Your task to perform on an android device: Go to calendar. Show me events next week Image 0: 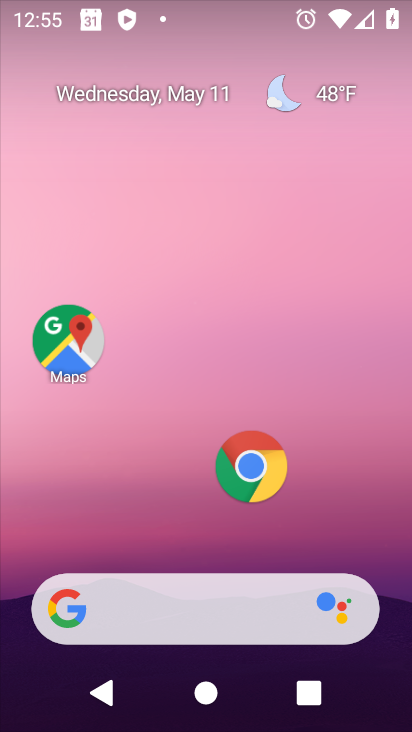
Step 0: drag from (148, 545) to (230, 121)
Your task to perform on an android device: Go to calendar. Show me events next week Image 1: 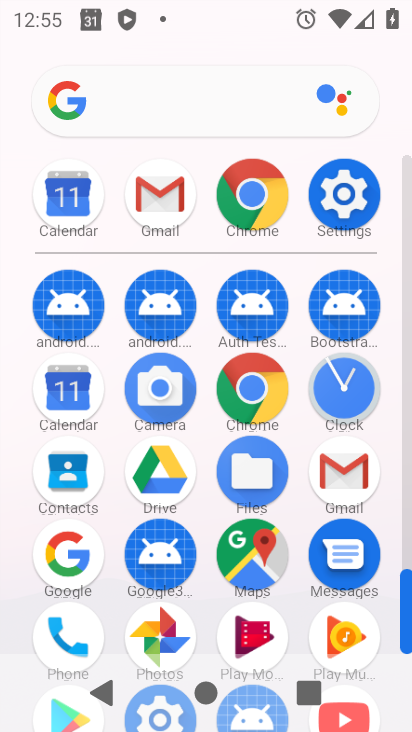
Step 1: click (64, 385)
Your task to perform on an android device: Go to calendar. Show me events next week Image 2: 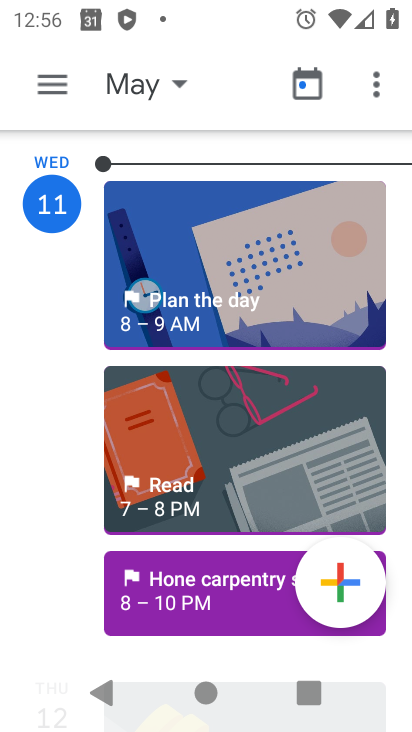
Step 2: click (141, 86)
Your task to perform on an android device: Go to calendar. Show me events next week Image 3: 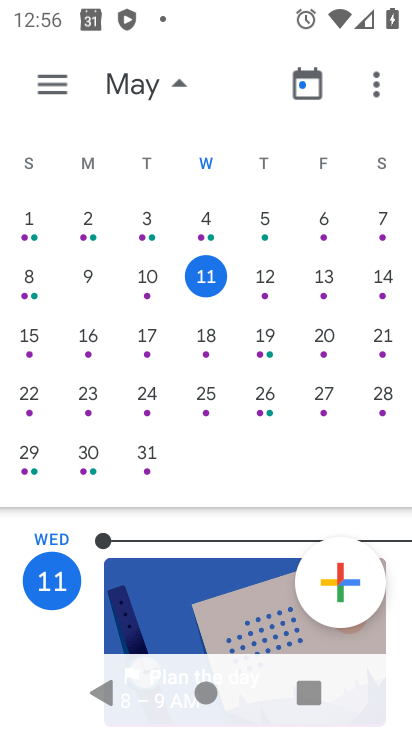
Step 3: click (88, 336)
Your task to perform on an android device: Go to calendar. Show me events next week Image 4: 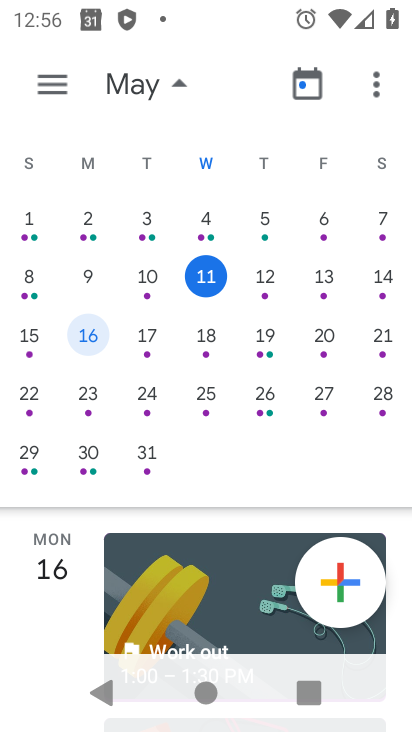
Step 4: drag from (166, 561) to (275, 92)
Your task to perform on an android device: Go to calendar. Show me events next week Image 5: 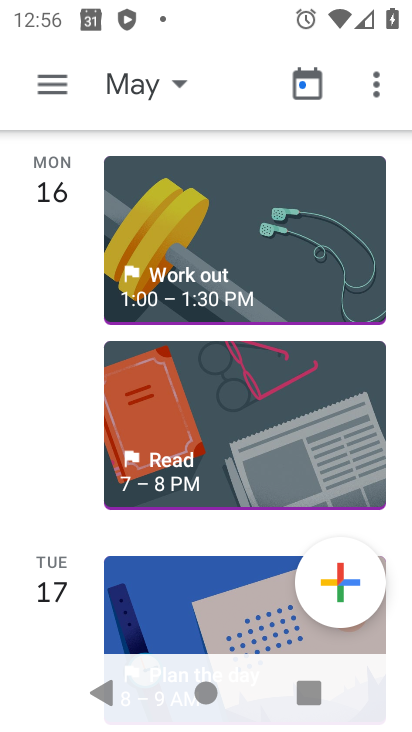
Step 5: drag from (205, 581) to (351, 21)
Your task to perform on an android device: Go to calendar. Show me events next week Image 6: 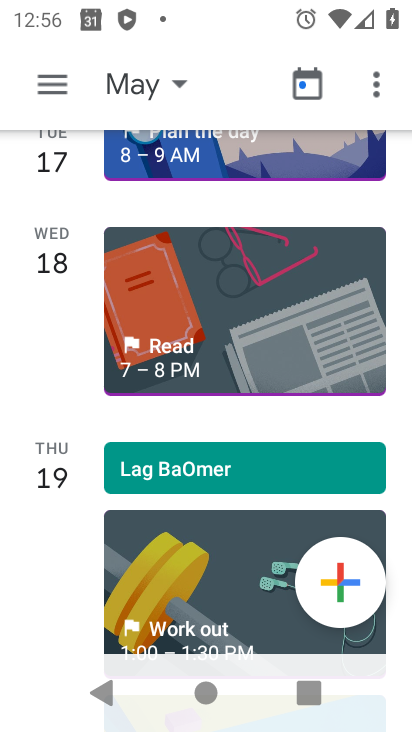
Step 6: click (177, 487)
Your task to perform on an android device: Go to calendar. Show me events next week Image 7: 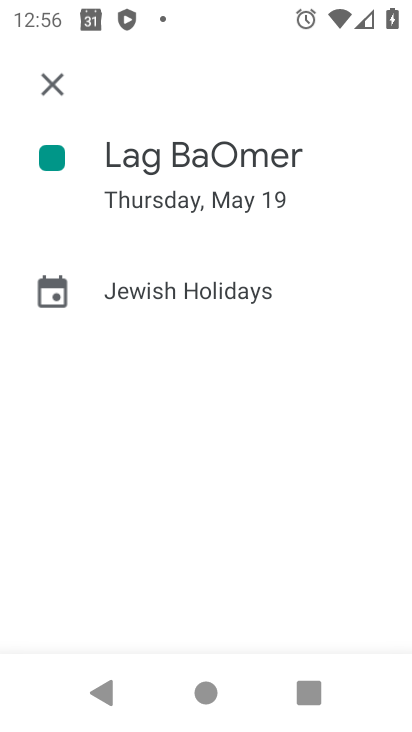
Step 7: task complete